Your task to perform on an android device: Go to Google maps Image 0: 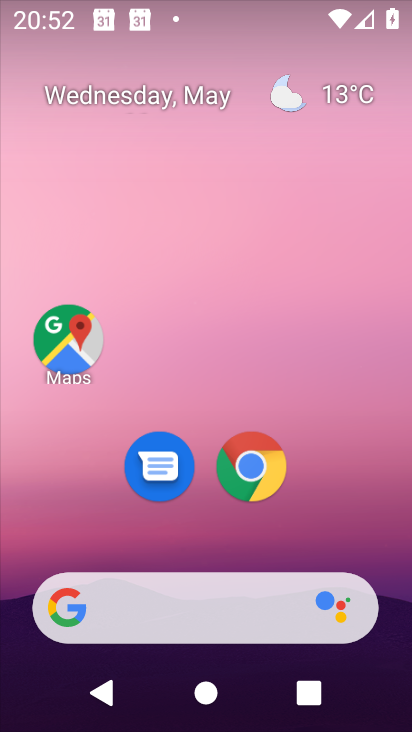
Step 0: press home button
Your task to perform on an android device: Go to Google maps Image 1: 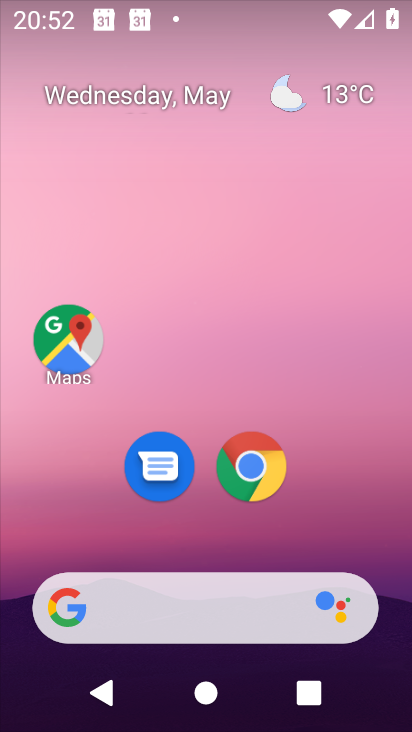
Step 1: click (70, 339)
Your task to perform on an android device: Go to Google maps Image 2: 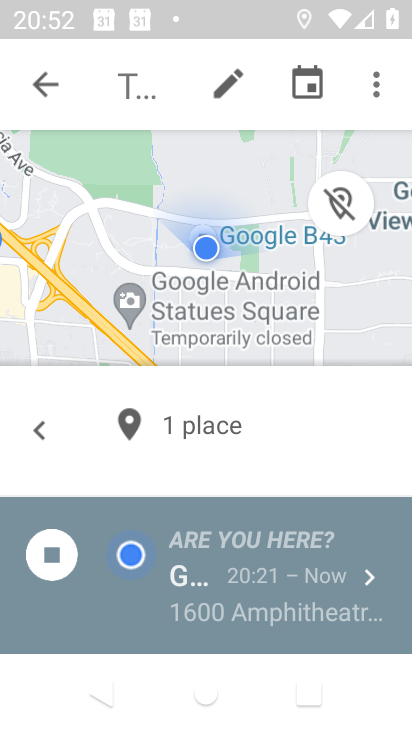
Step 2: click (47, 89)
Your task to perform on an android device: Go to Google maps Image 3: 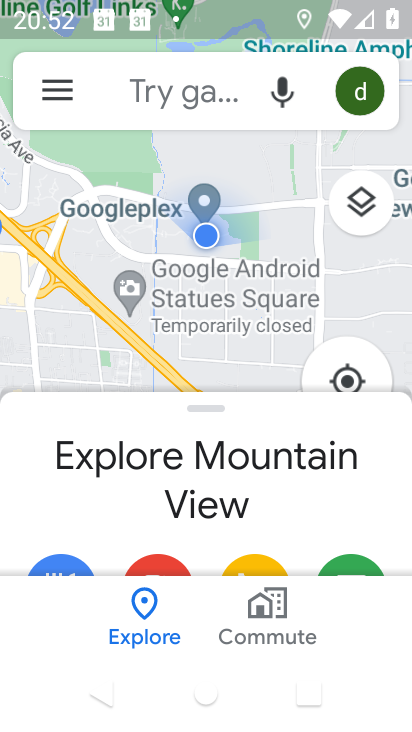
Step 3: task complete